Your task to perform on an android device: What is the recent news? Image 0: 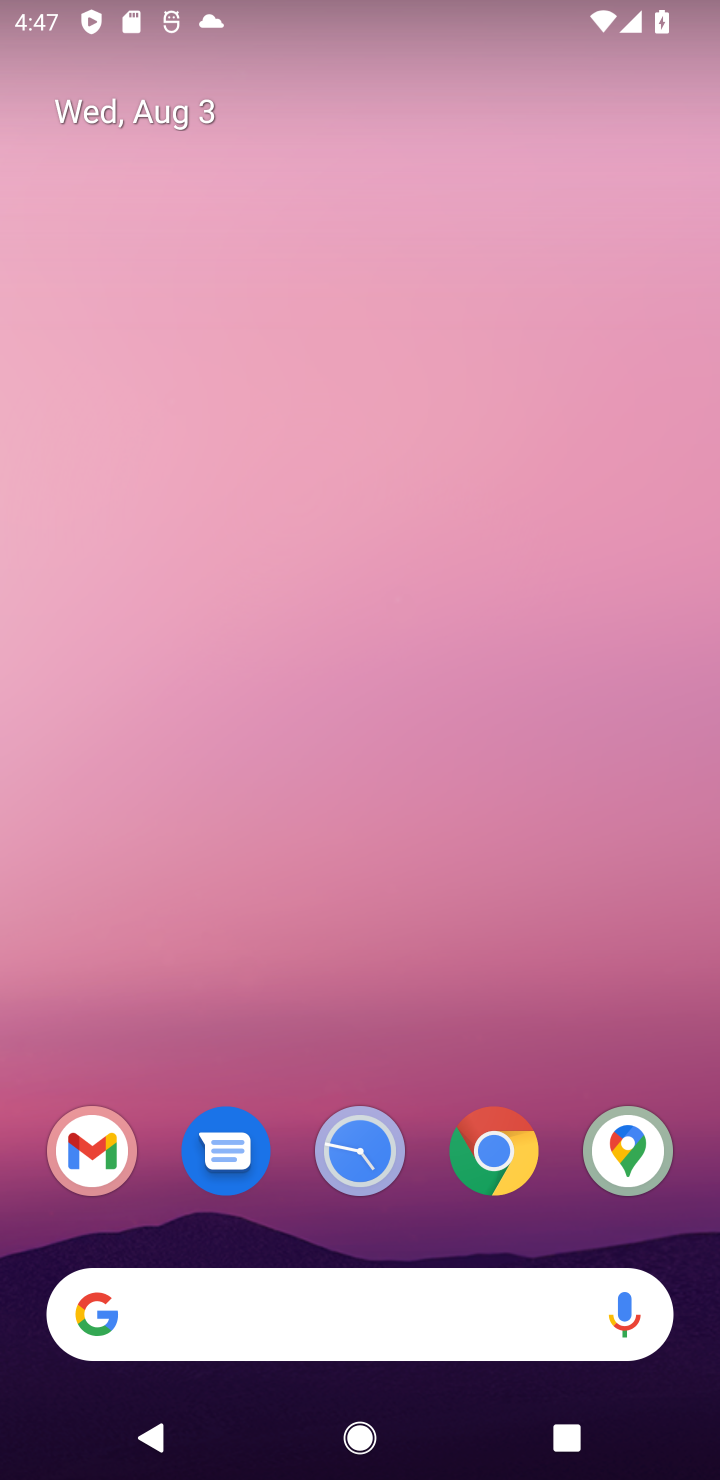
Step 0: drag from (423, 1423) to (271, 330)
Your task to perform on an android device: What is the recent news? Image 1: 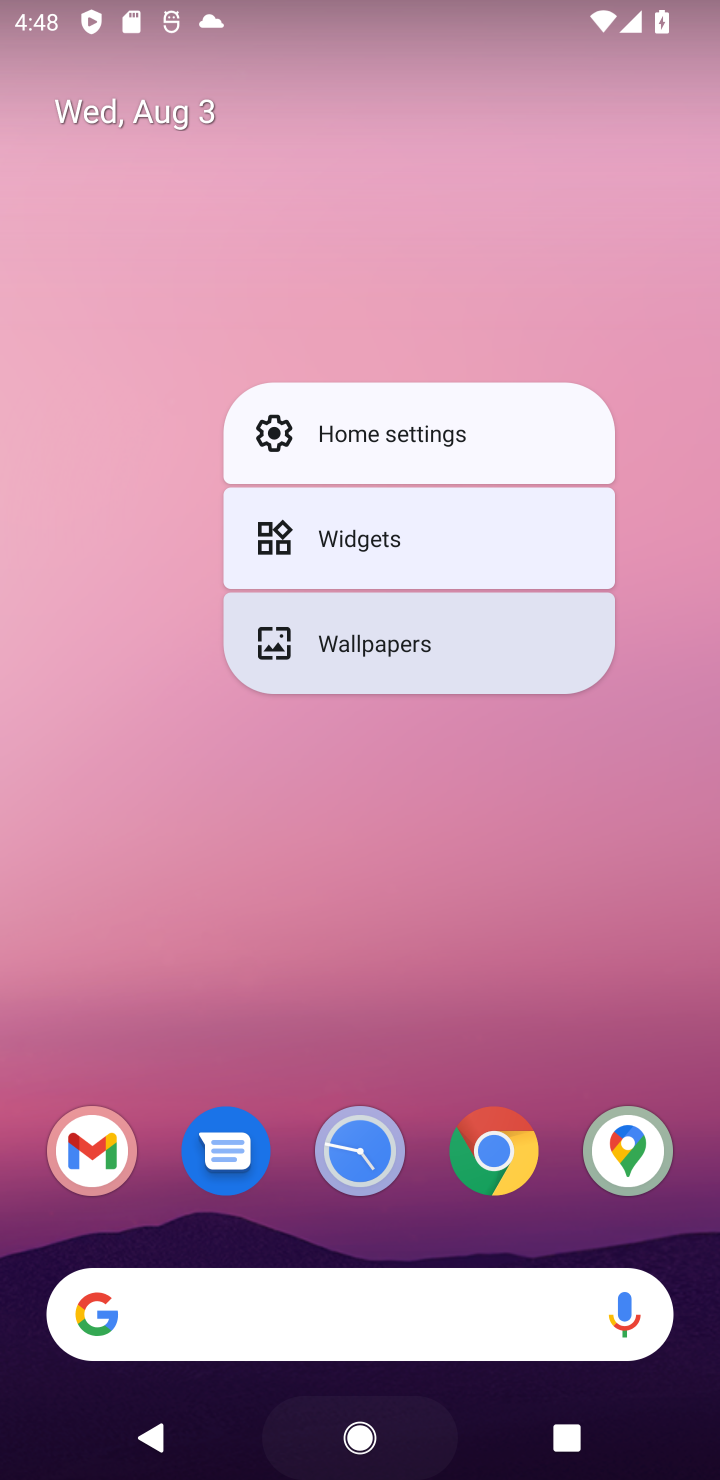
Step 1: drag from (380, 1061) to (280, 552)
Your task to perform on an android device: What is the recent news? Image 2: 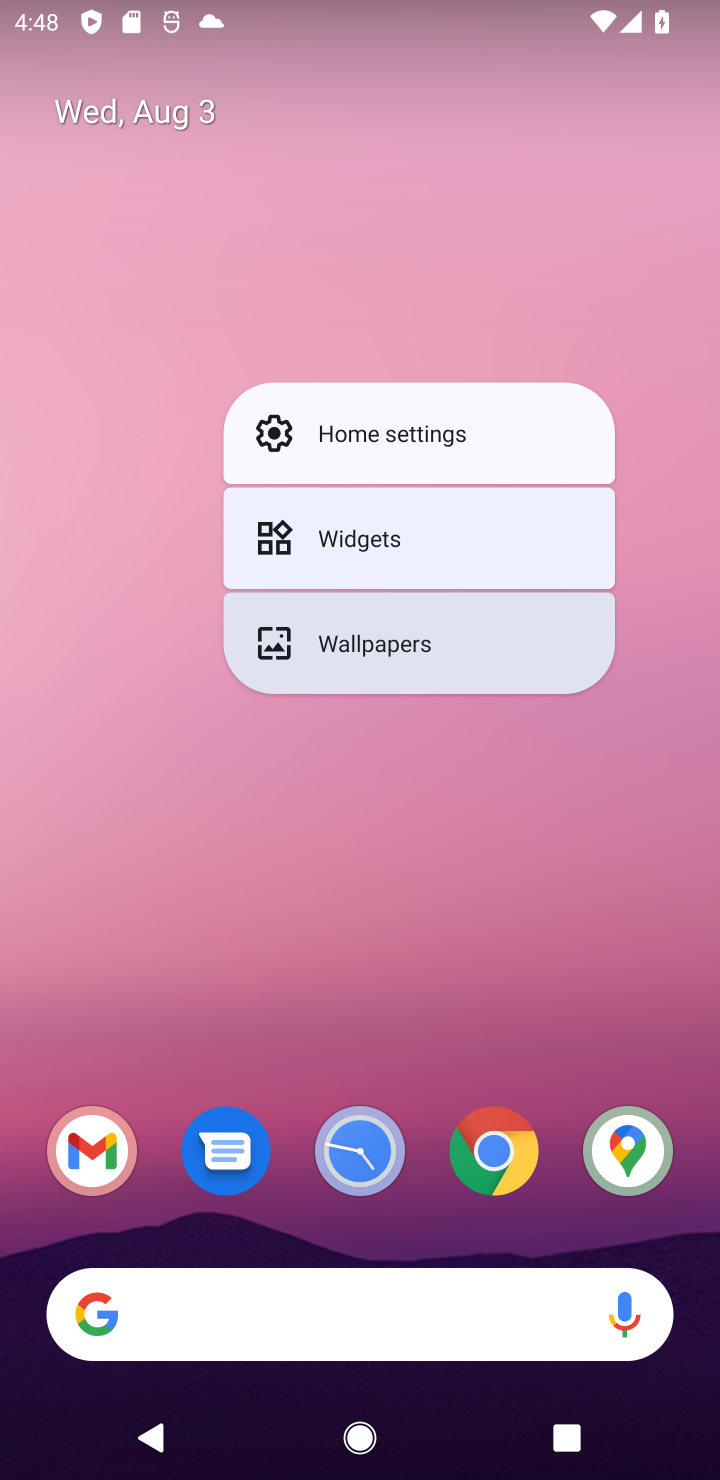
Step 2: drag from (443, 1286) to (305, 188)
Your task to perform on an android device: What is the recent news? Image 3: 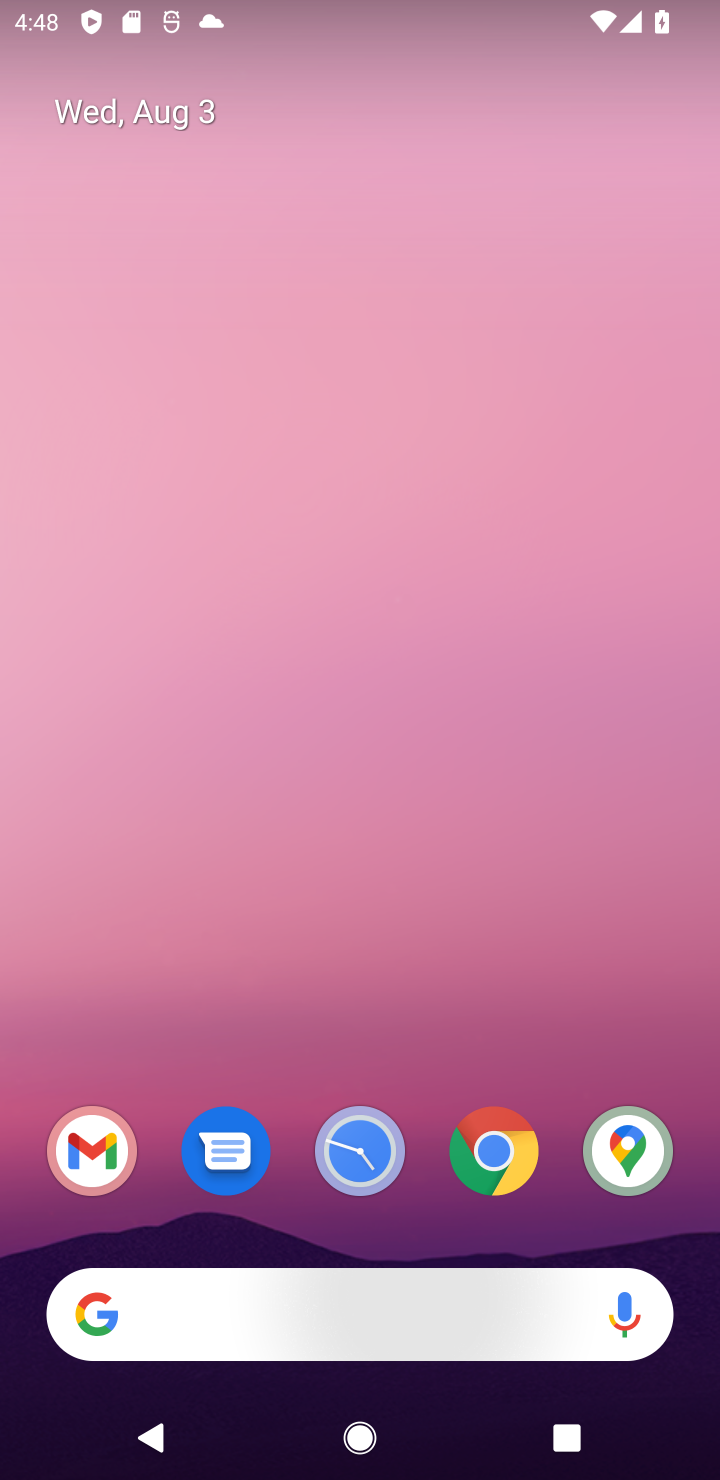
Step 3: drag from (466, 927) to (391, 387)
Your task to perform on an android device: What is the recent news? Image 4: 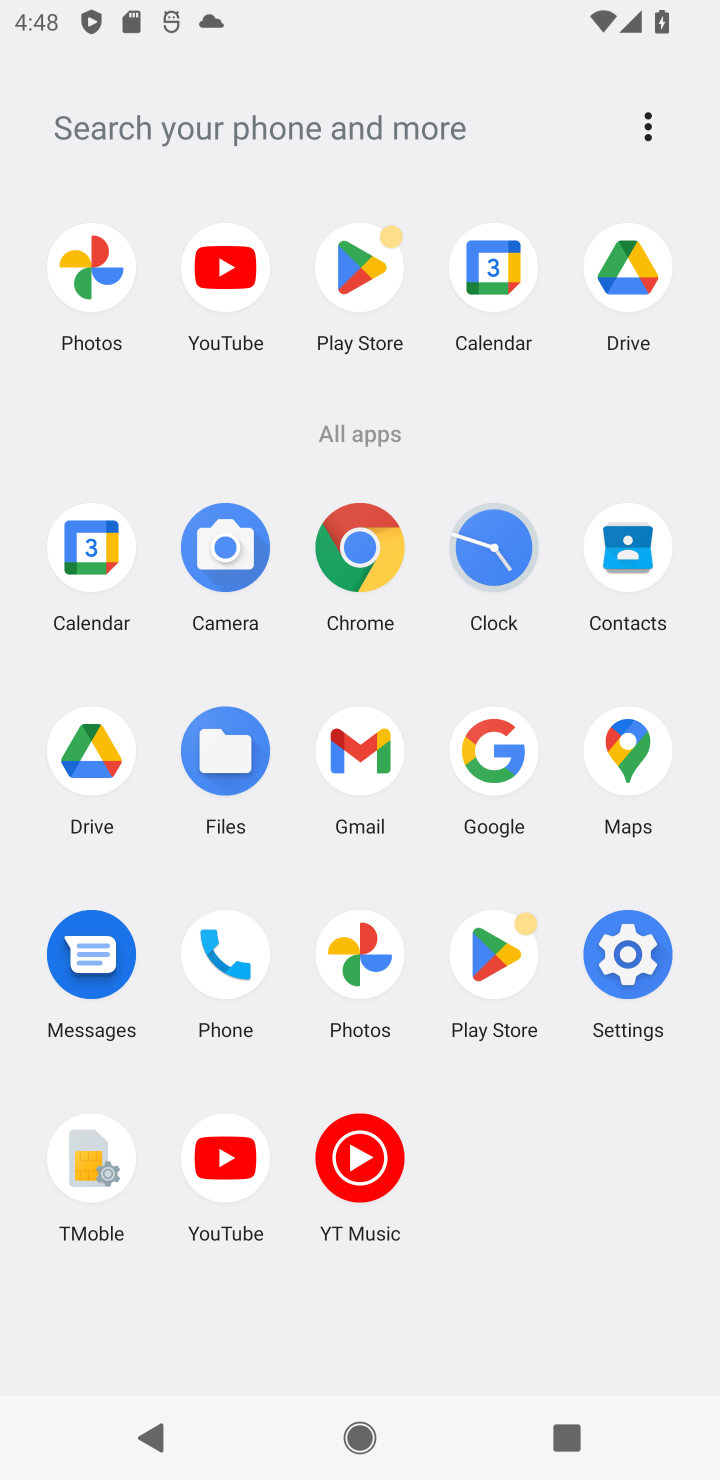
Step 4: click (267, 304)
Your task to perform on an android device: What is the recent news? Image 5: 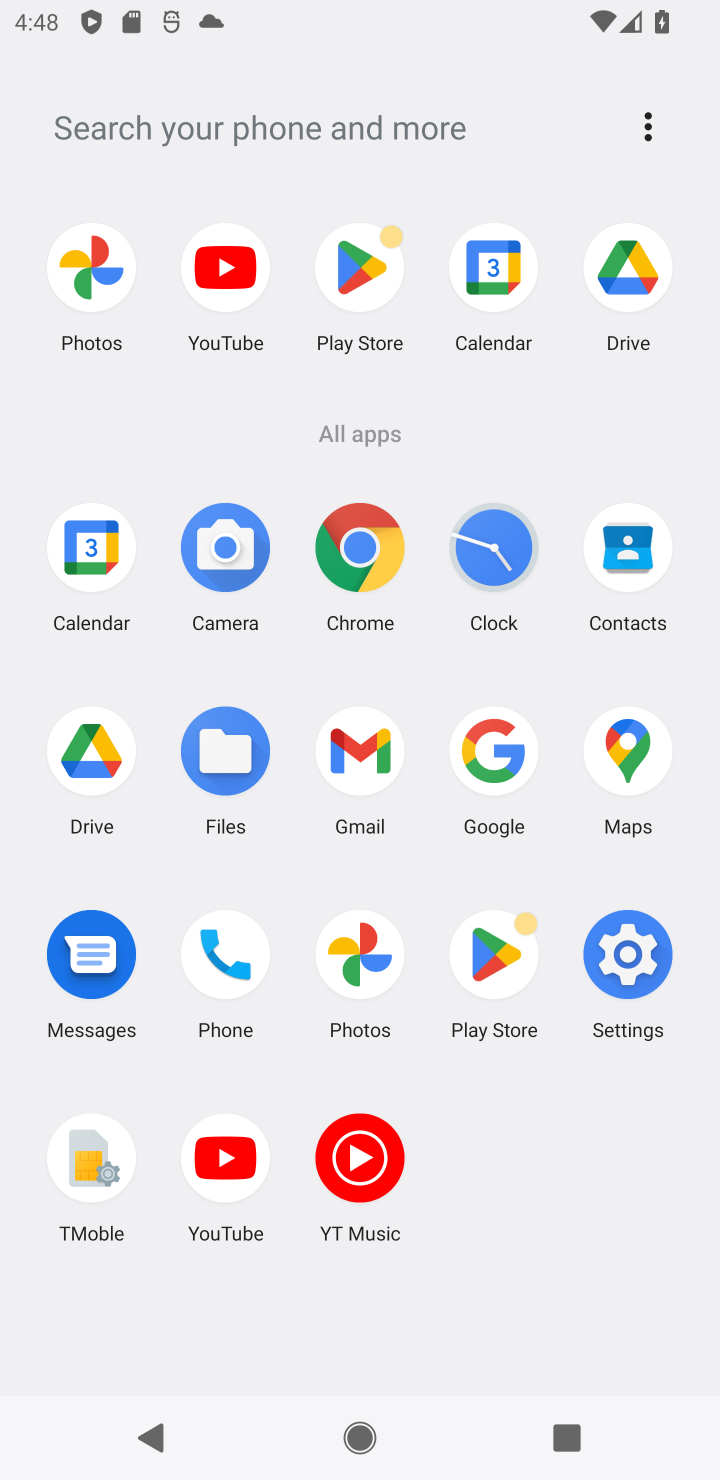
Step 5: click (375, 536)
Your task to perform on an android device: What is the recent news? Image 6: 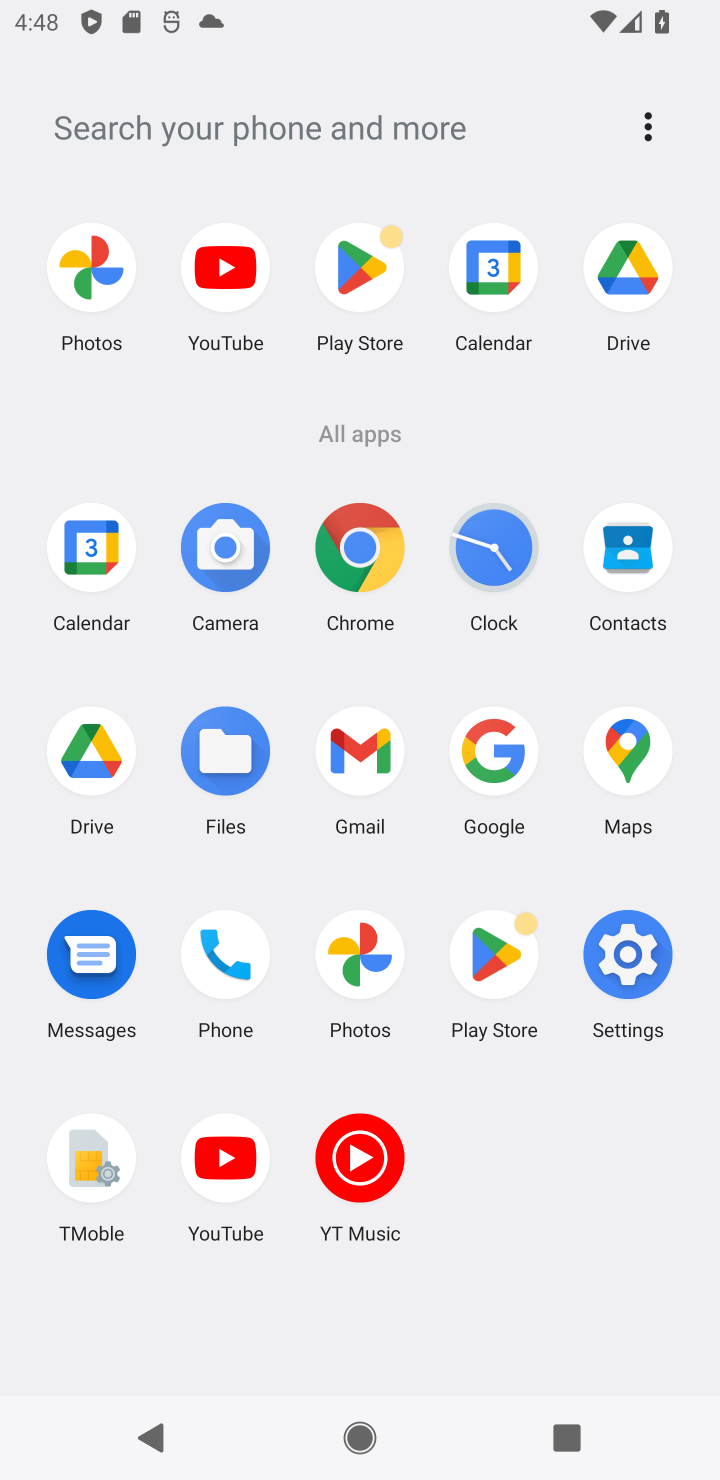
Step 6: click (361, 545)
Your task to perform on an android device: What is the recent news? Image 7: 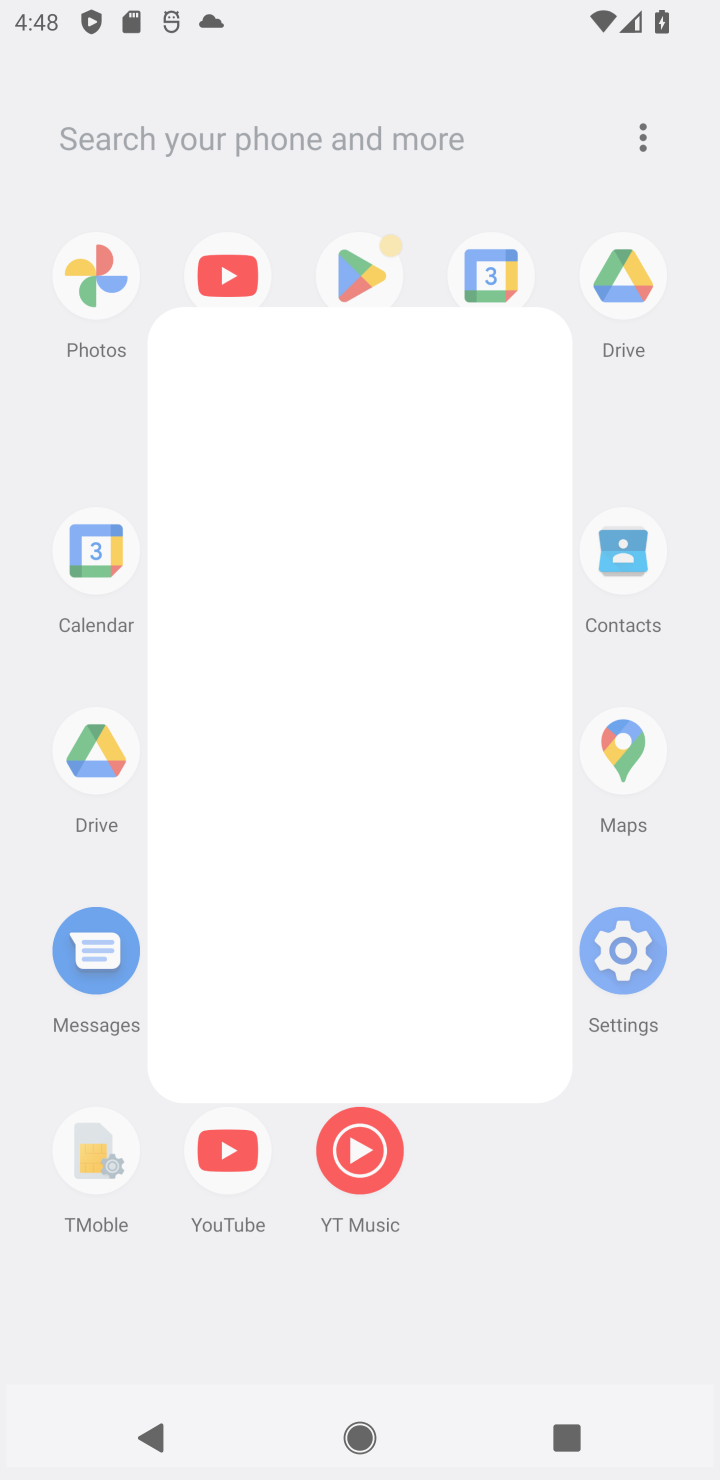
Step 7: click (345, 571)
Your task to perform on an android device: What is the recent news? Image 8: 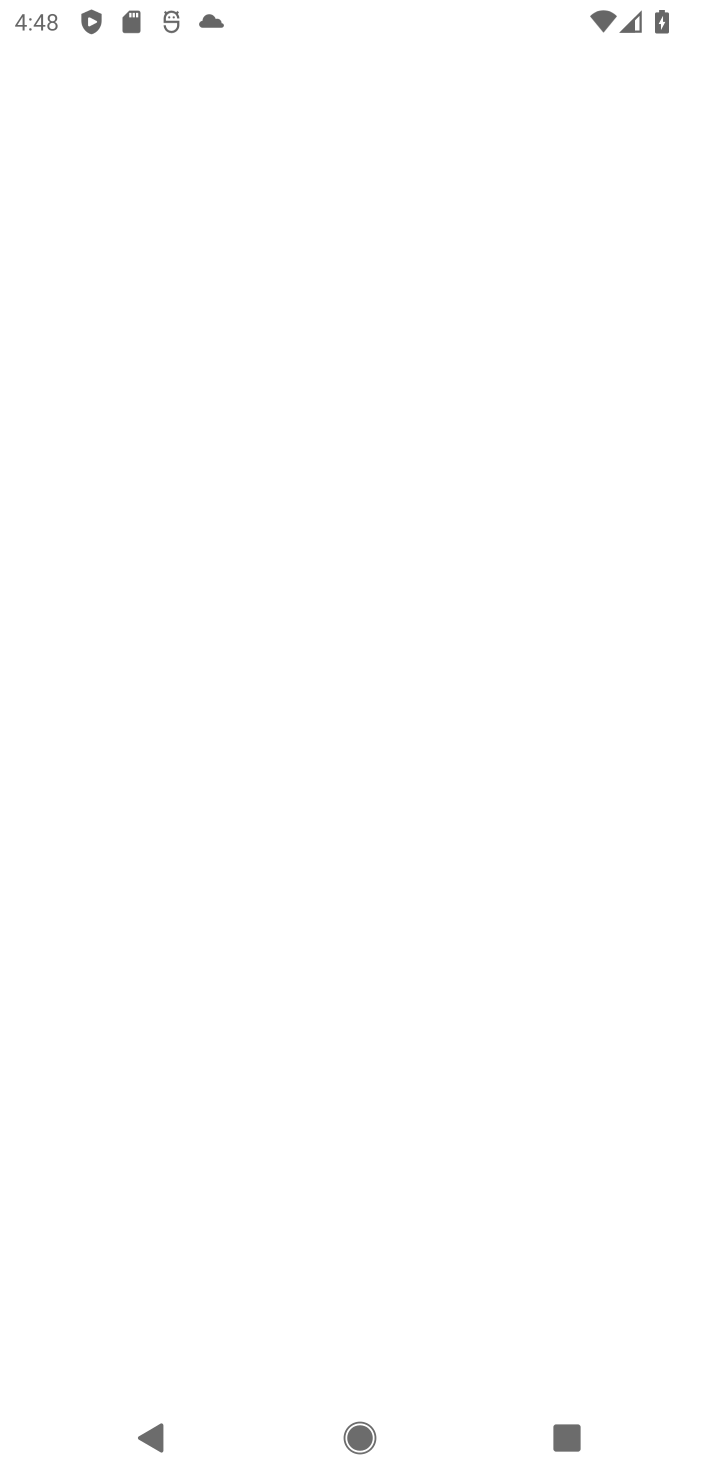
Step 8: click (345, 569)
Your task to perform on an android device: What is the recent news? Image 9: 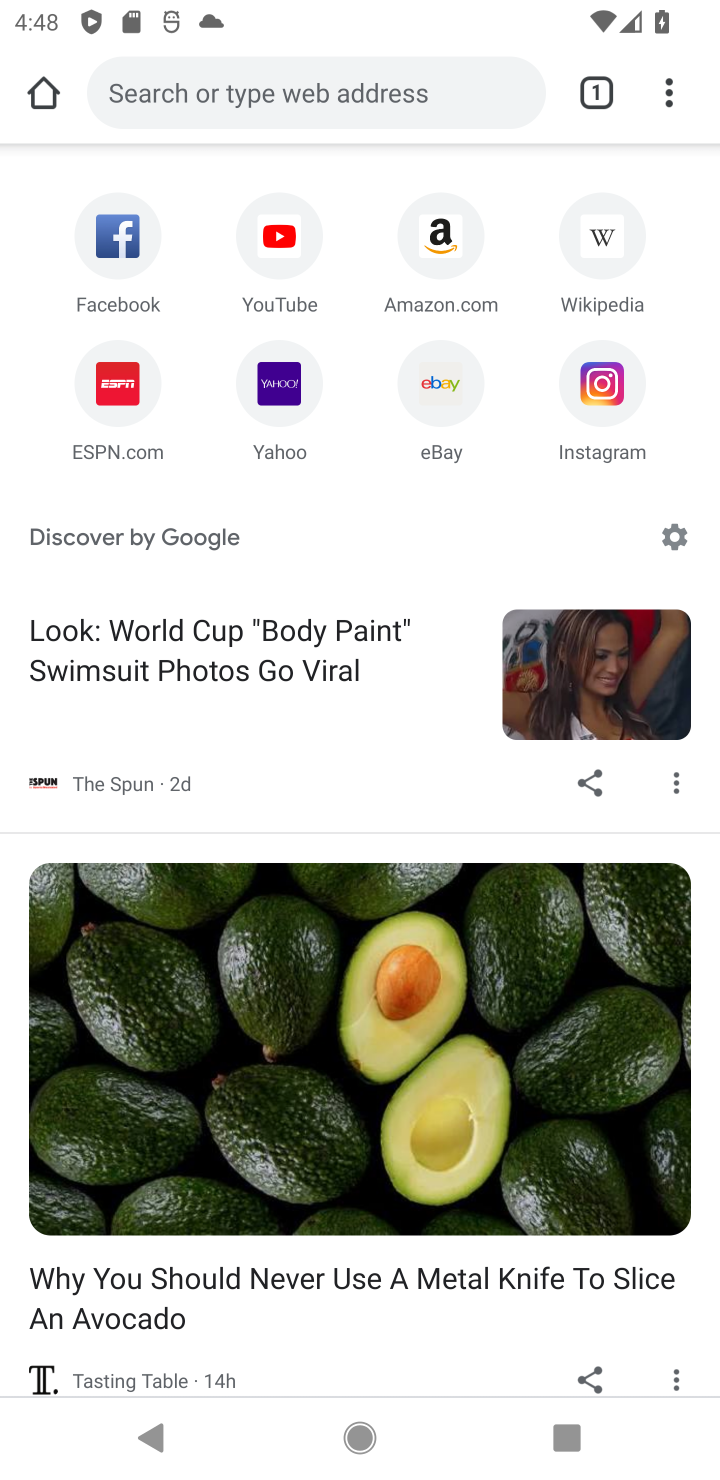
Step 9: task complete